Your task to perform on an android device: Open display settings Image 0: 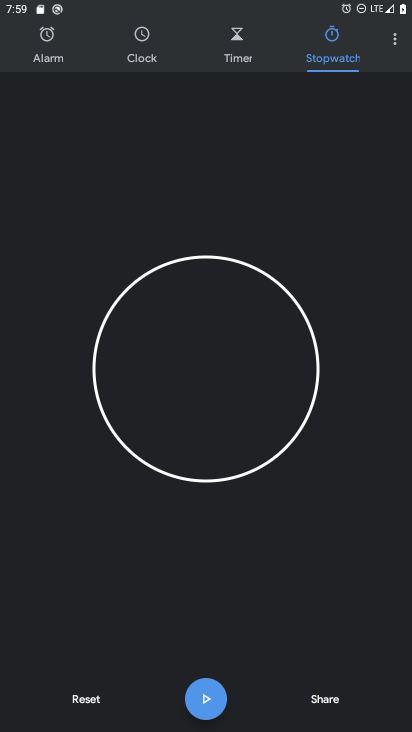
Step 0: drag from (385, 660) to (356, 113)
Your task to perform on an android device: Open display settings Image 1: 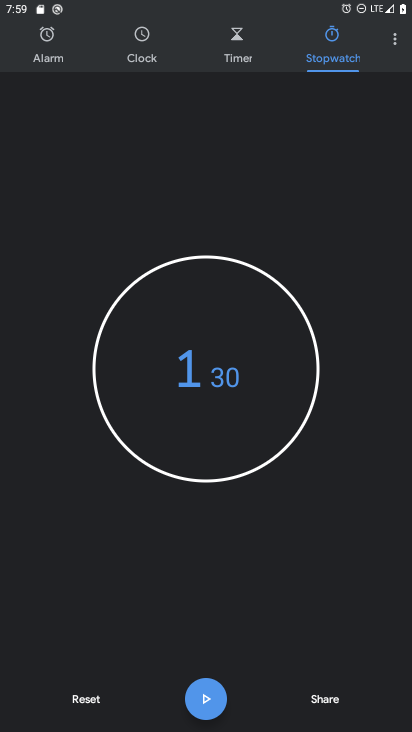
Step 1: press home button
Your task to perform on an android device: Open display settings Image 2: 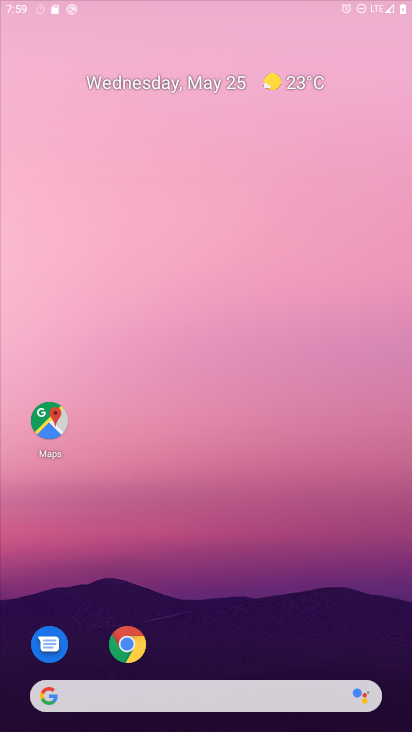
Step 2: drag from (390, 626) to (303, 43)
Your task to perform on an android device: Open display settings Image 3: 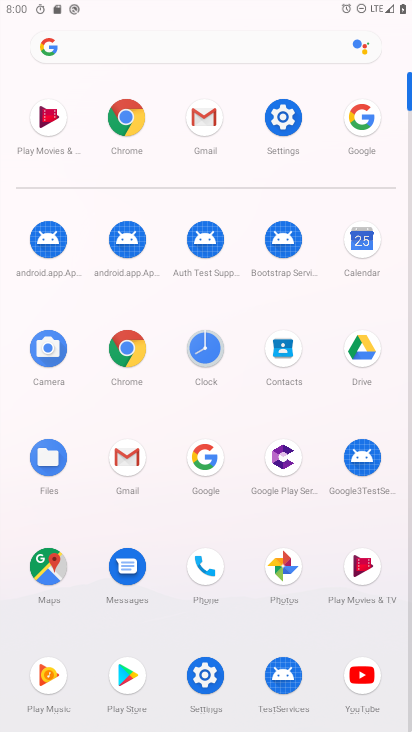
Step 3: click (279, 128)
Your task to perform on an android device: Open display settings Image 4: 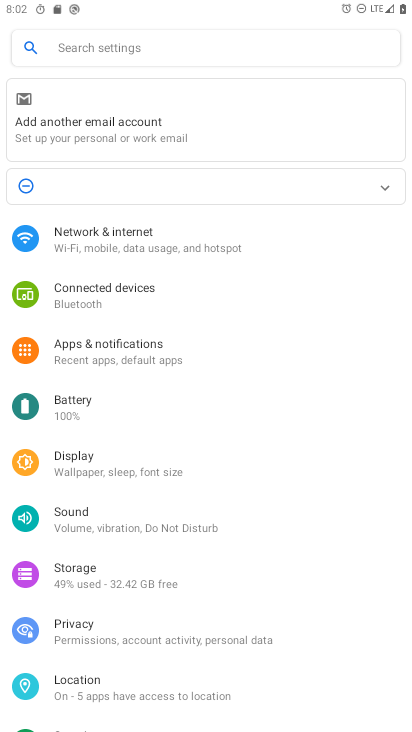
Step 4: click (115, 461)
Your task to perform on an android device: Open display settings Image 5: 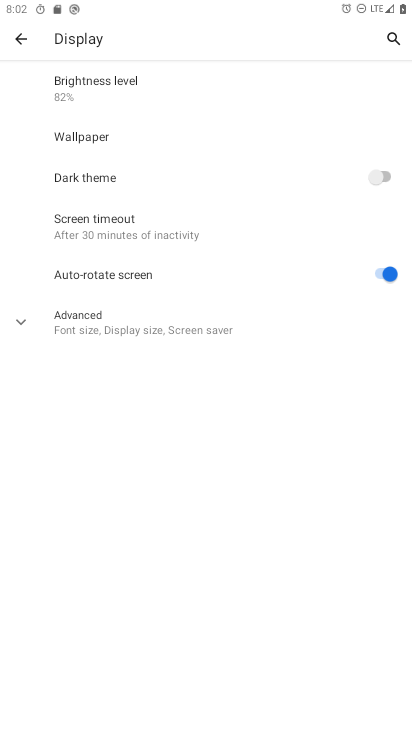
Step 5: task complete